Your task to perform on an android device: toggle translation in the chrome app Image 0: 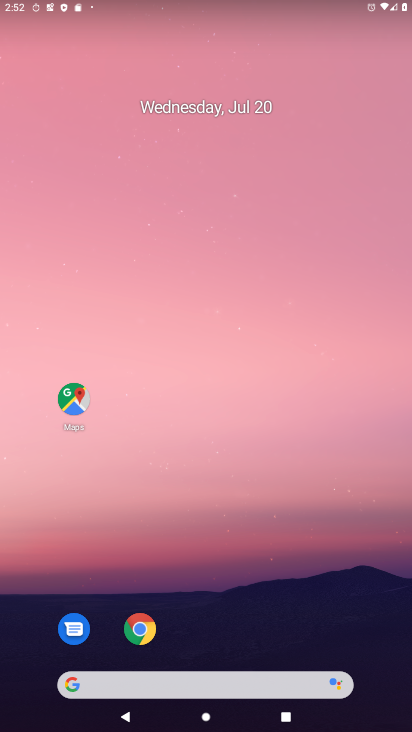
Step 0: press home button
Your task to perform on an android device: toggle translation in the chrome app Image 1: 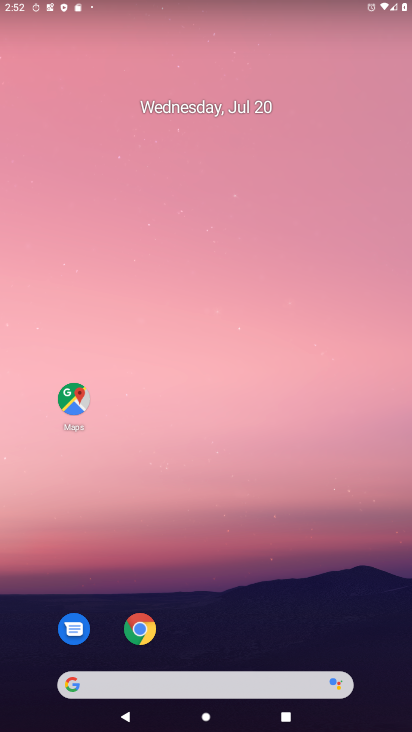
Step 1: click (139, 624)
Your task to perform on an android device: toggle translation in the chrome app Image 2: 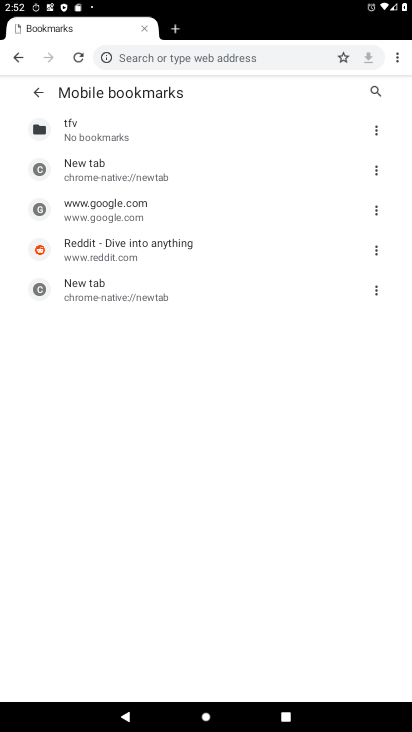
Step 2: click (176, 24)
Your task to perform on an android device: toggle translation in the chrome app Image 3: 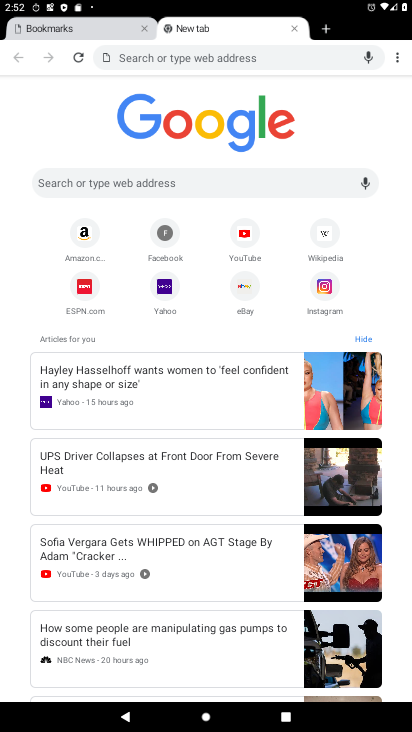
Step 3: click (395, 57)
Your task to perform on an android device: toggle translation in the chrome app Image 4: 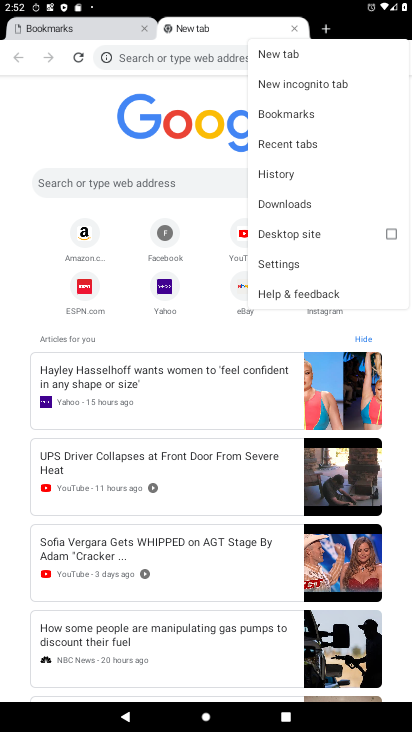
Step 4: click (306, 263)
Your task to perform on an android device: toggle translation in the chrome app Image 5: 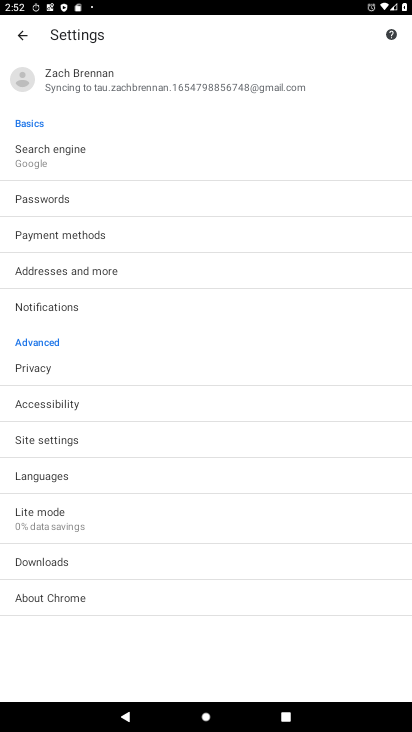
Step 5: click (79, 473)
Your task to perform on an android device: toggle translation in the chrome app Image 6: 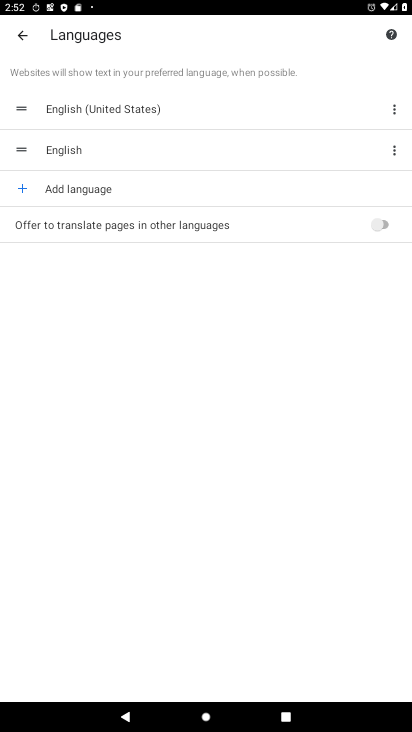
Step 6: click (377, 218)
Your task to perform on an android device: toggle translation in the chrome app Image 7: 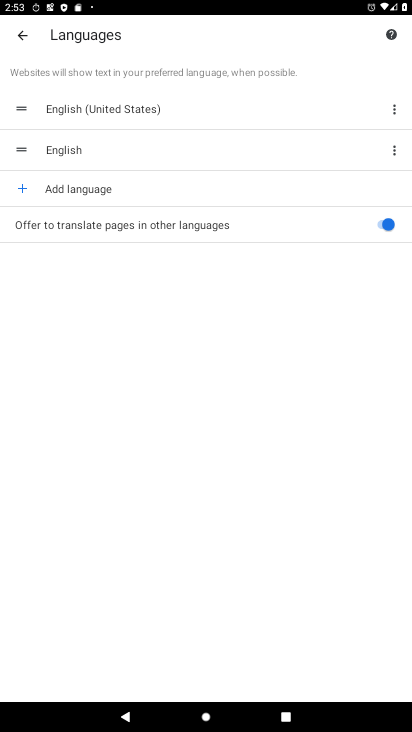
Step 7: task complete